Your task to perform on an android device: open wifi settings Image 0: 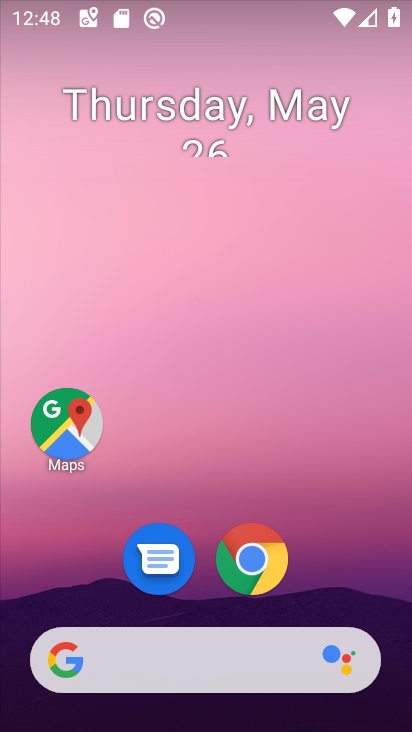
Step 0: press home button
Your task to perform on an android device: open wifi settings Image 1: 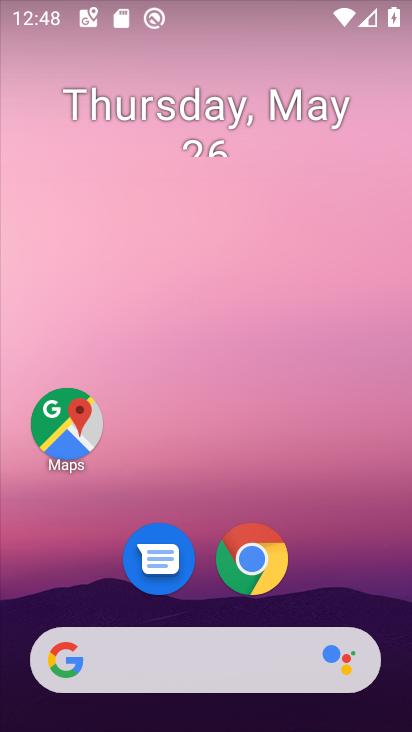
Step 1: drag from (309, 594) to (325, 208)
Your task to perform on an android device: open wifi settings Image 2: 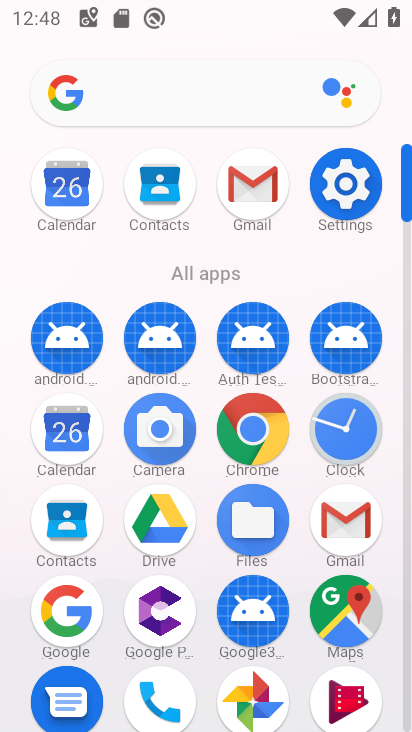
Step 2: click (348, 190)
Your task to perform on an android device: open wifi settings Image 3: 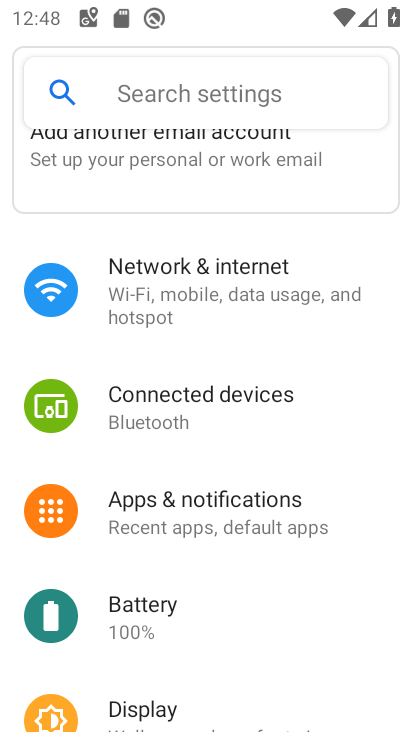
Step 3: click (168, 278)
Your task to perform on an android device: open wifi settings Image 4: 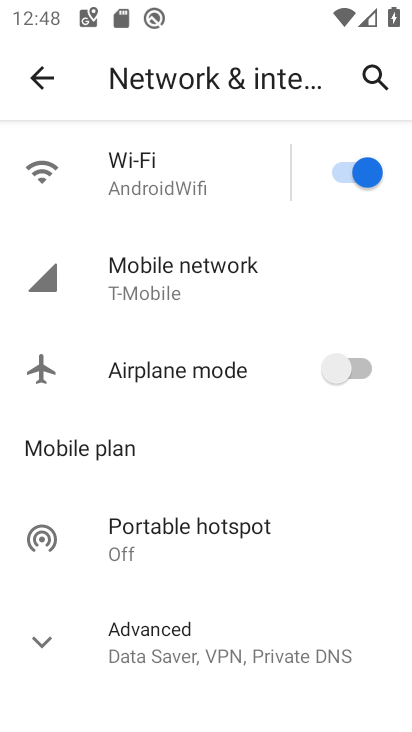
Step 4: click (133, 165)
Your task to perform on an android device: open wifi settings Image 5: 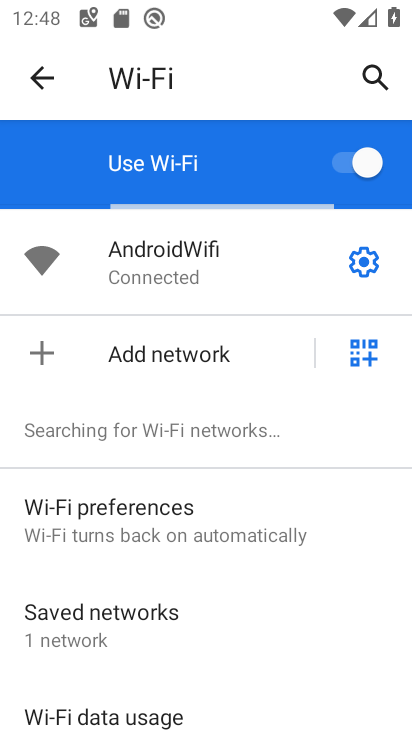
Step 5: task complete